Your task to perform on an android device: Search for 24"x36" picture frame on Home Depot. Image 0: 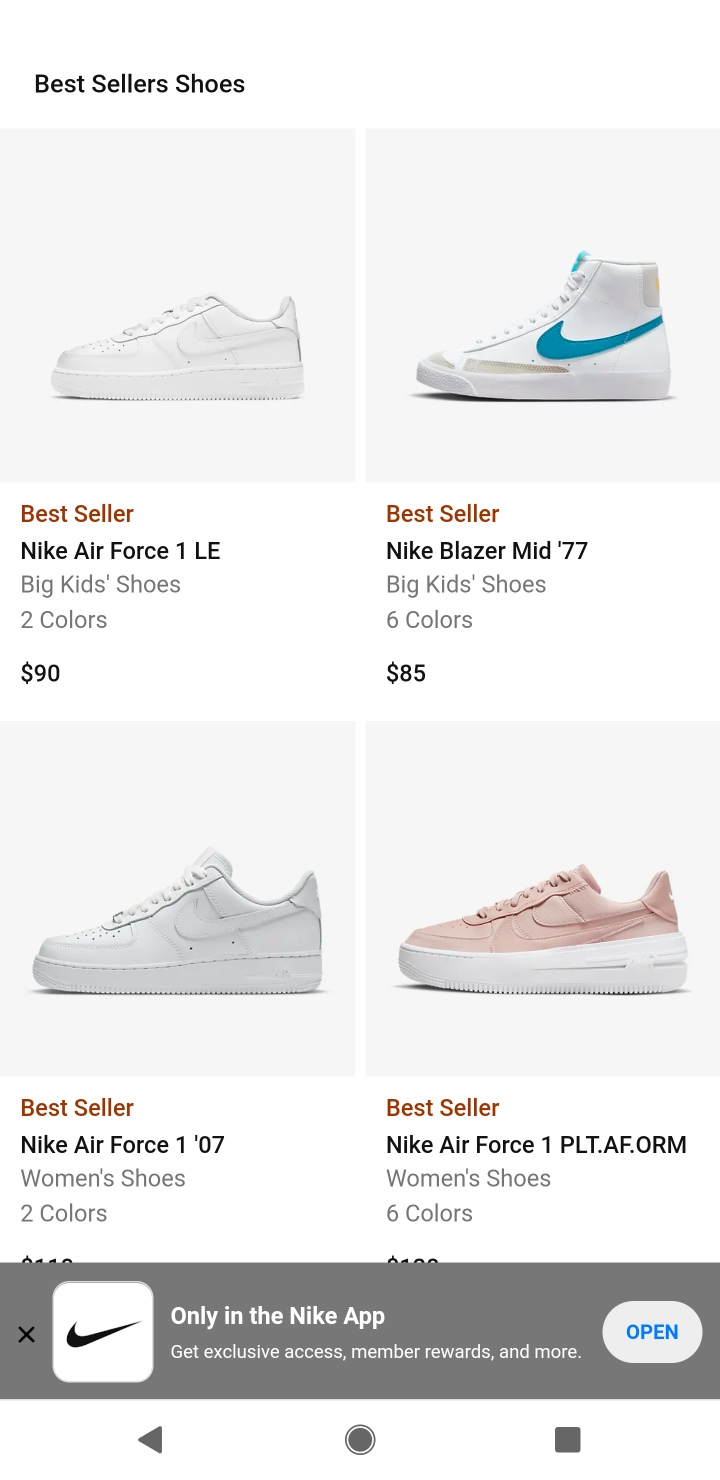
Step 0: press home button
Your task to perform on an android device: Search for 24"x36" picture frame on Home Depot. Image 1: 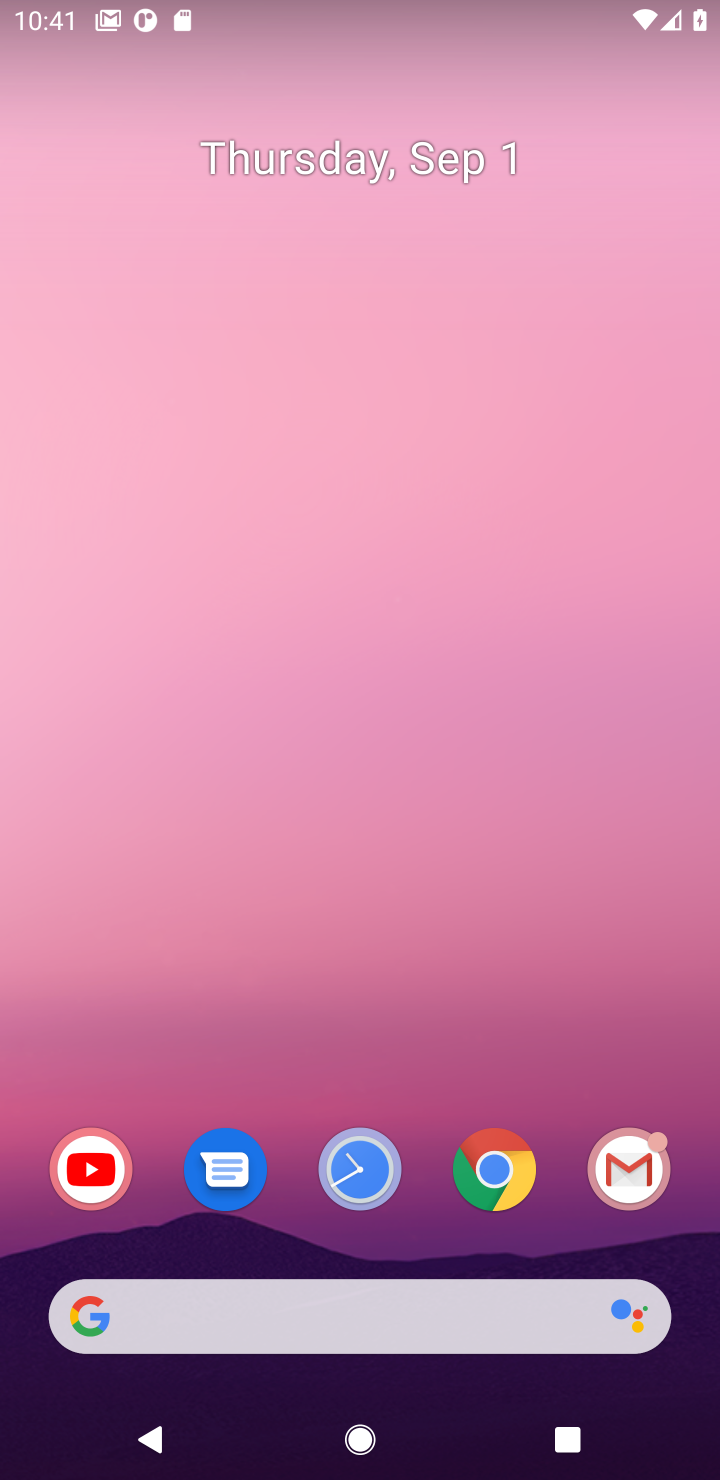
Step 1: drag from (419, 702) to (435, 24)
Your task to perform on an android device: Search for 24"x36" picture frame on Home Depot. Image 2: 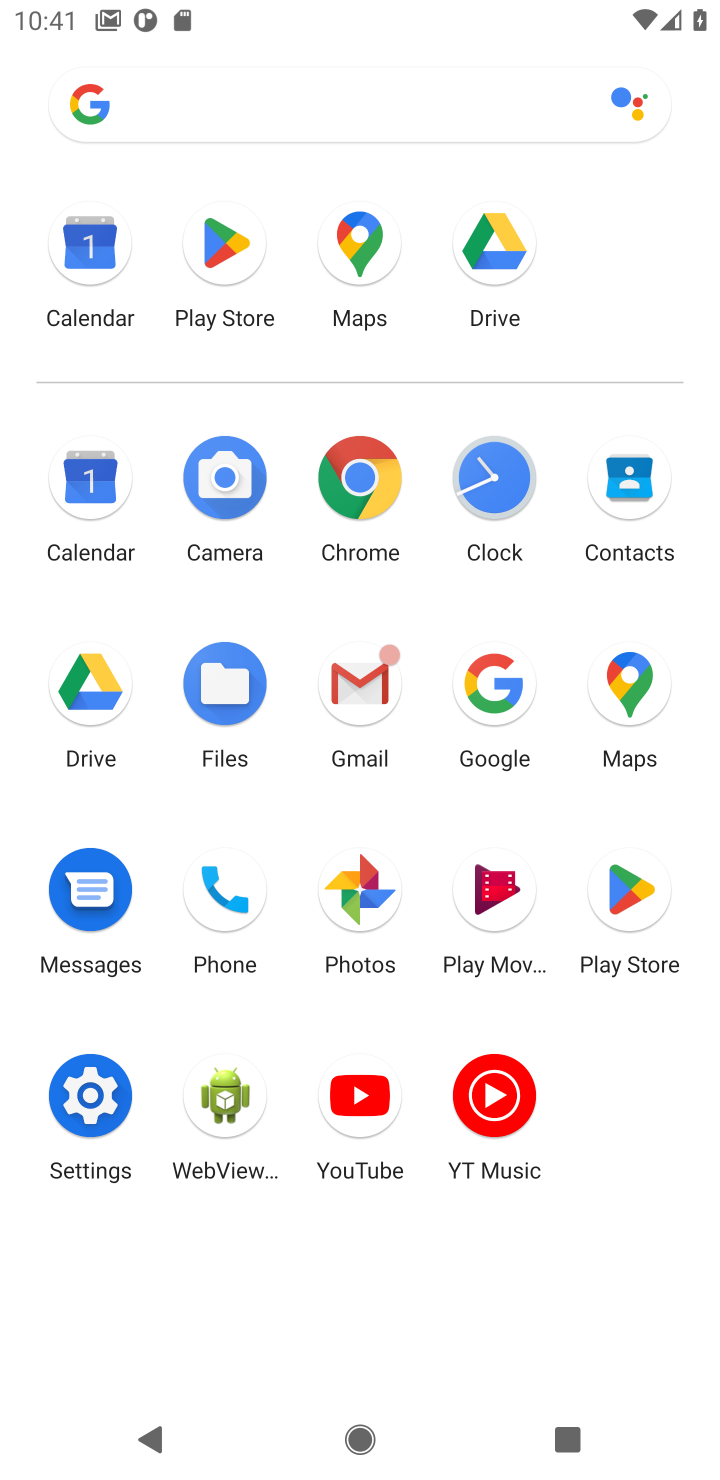
Step 2: click (363, 478)
Your task to perform on an android device: Search for 24"x36" picture frame on Home Depot. Image 3: 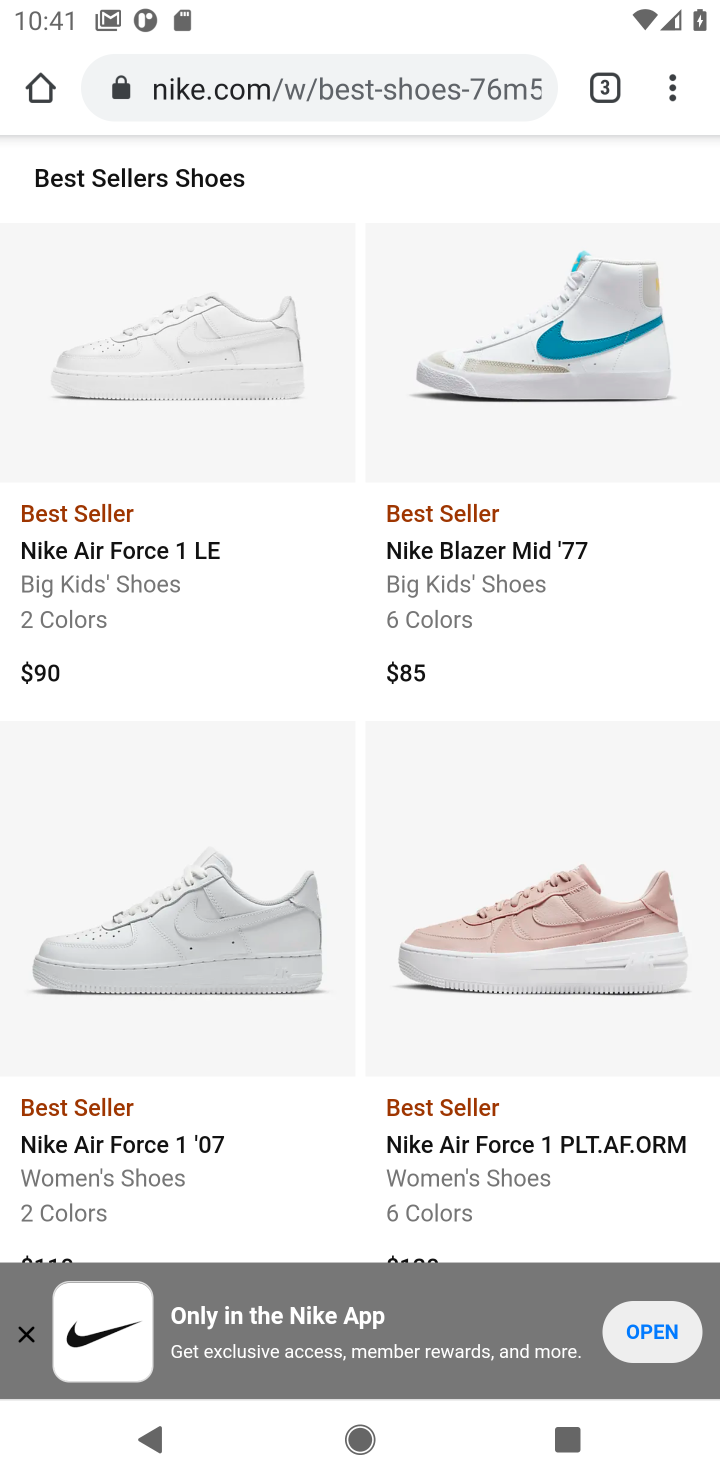
Step 3: drag from (364, 1117) to (407, 1273)
Your task to perform on an android device: Search for 24"x36" picture frame on Home Depot. Image 4: 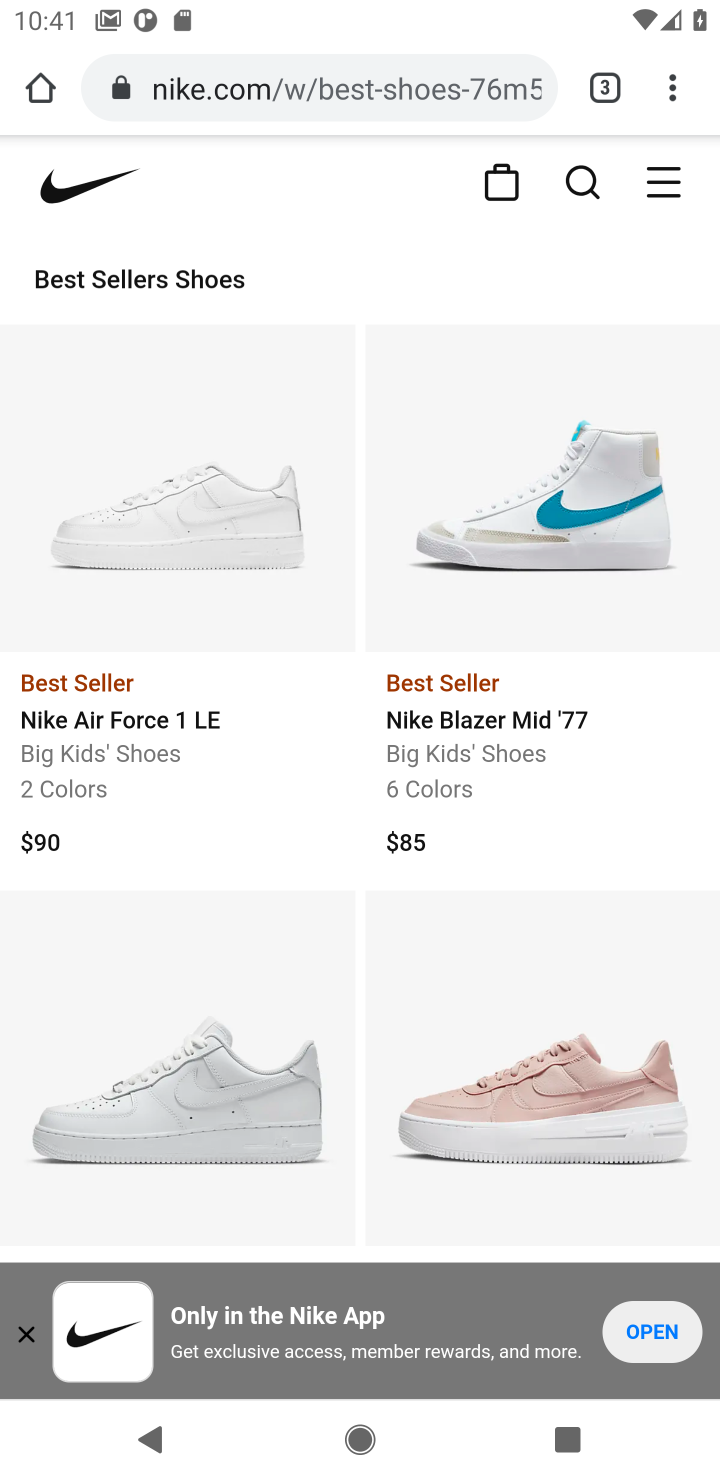
Step 4: click (209, 80)
Your task to perform on an android device: Search for 24"x36" picture frame on Home Depot. Image 5: 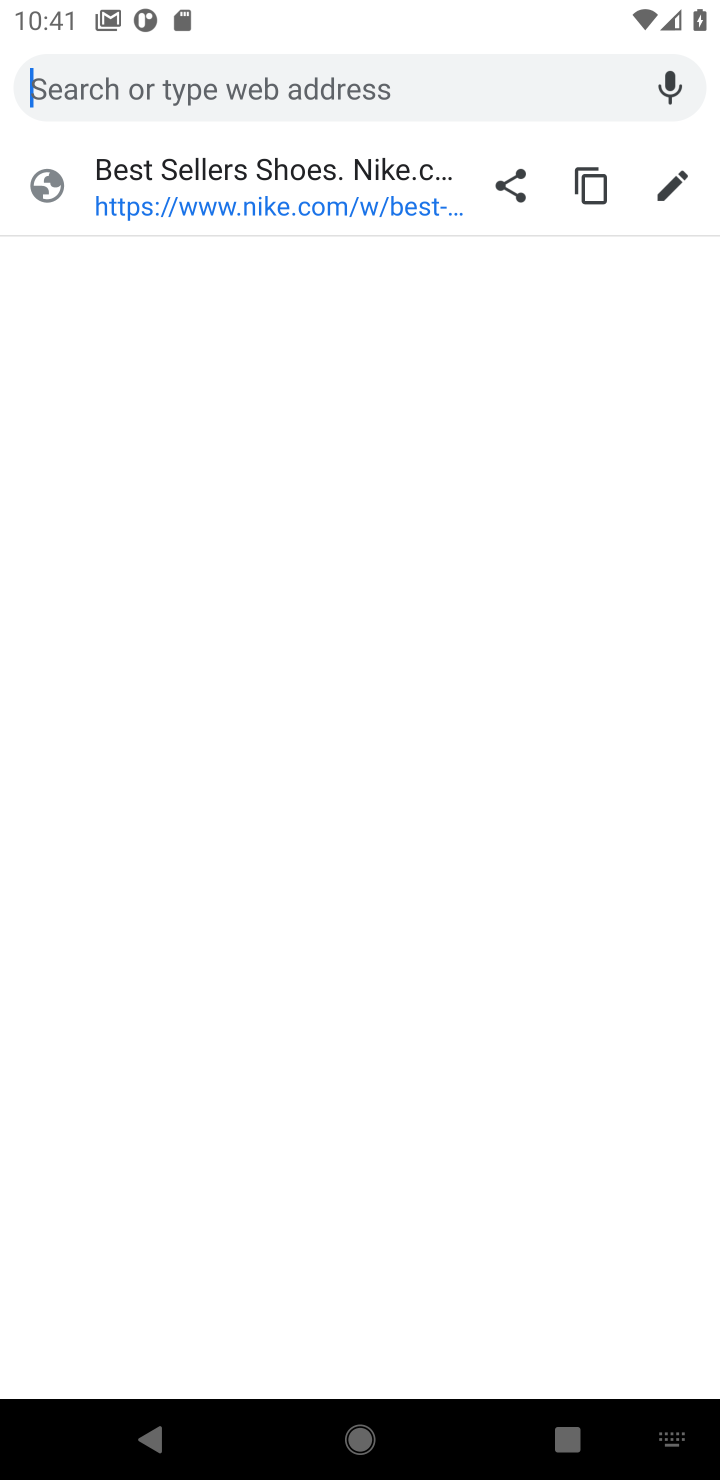
Step 5: click (131, 76)
Your task to perform on an android device: Search for 24"x36" picture frame on Home Depot. Image 6: 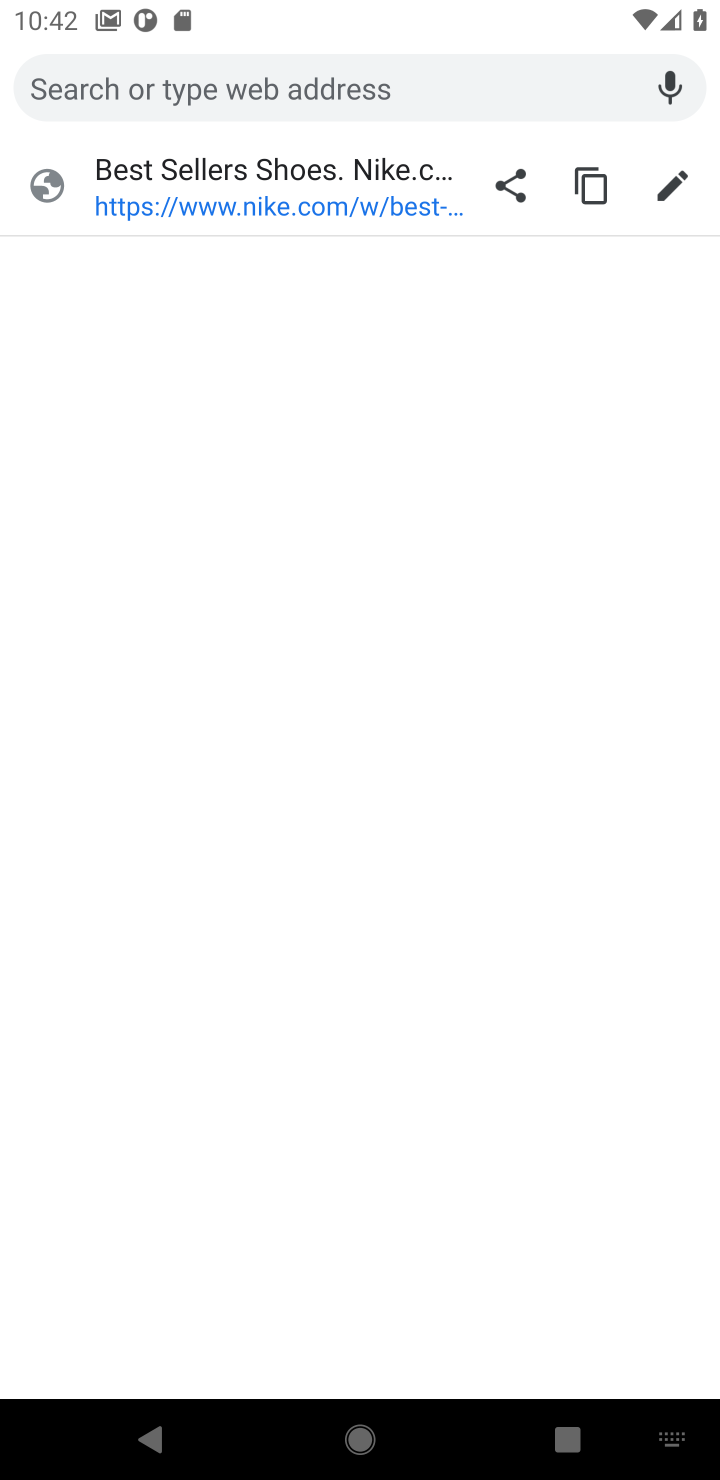
Step 6: click (302, 86)
Your task to perform on an android device: Search for 24"x36" picture frame on Home Depot. Image 7: 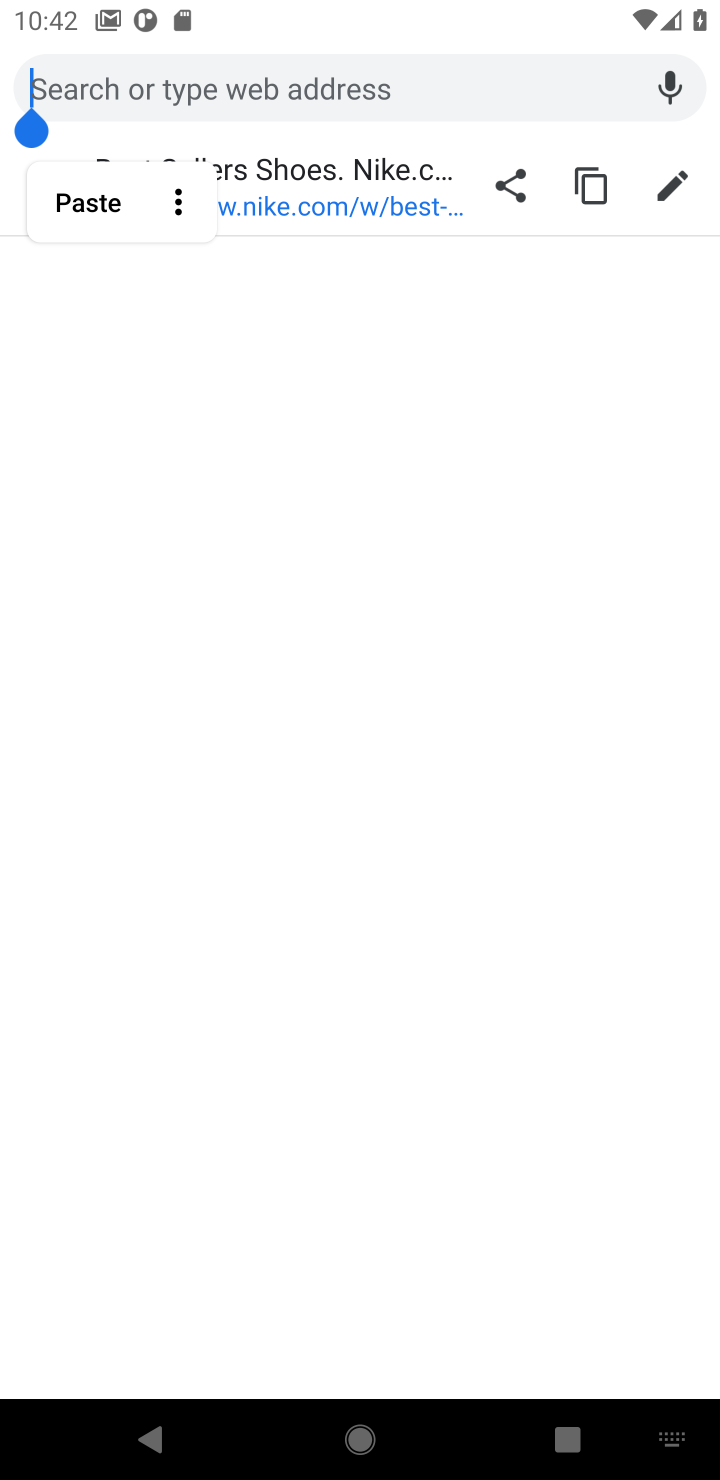
Step 7: type "24"x36" picture frame on Home Depot"
Your task to perform on an android device: Search for 24"x36" picture frame on Home Depot. Image 8: 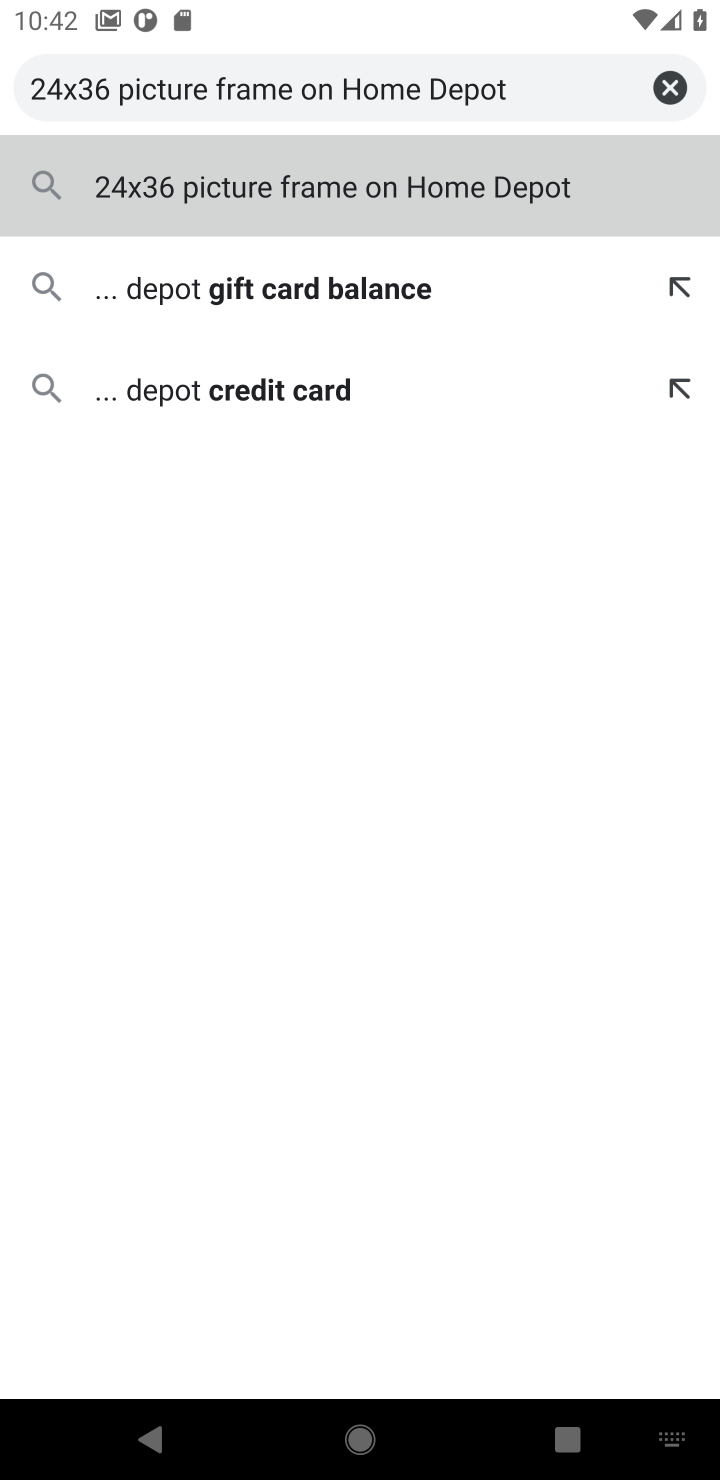
Step 8: type ""
Your task to perform on an android device: Search for 24"x36" picture frame on Home Depot. Image 9: 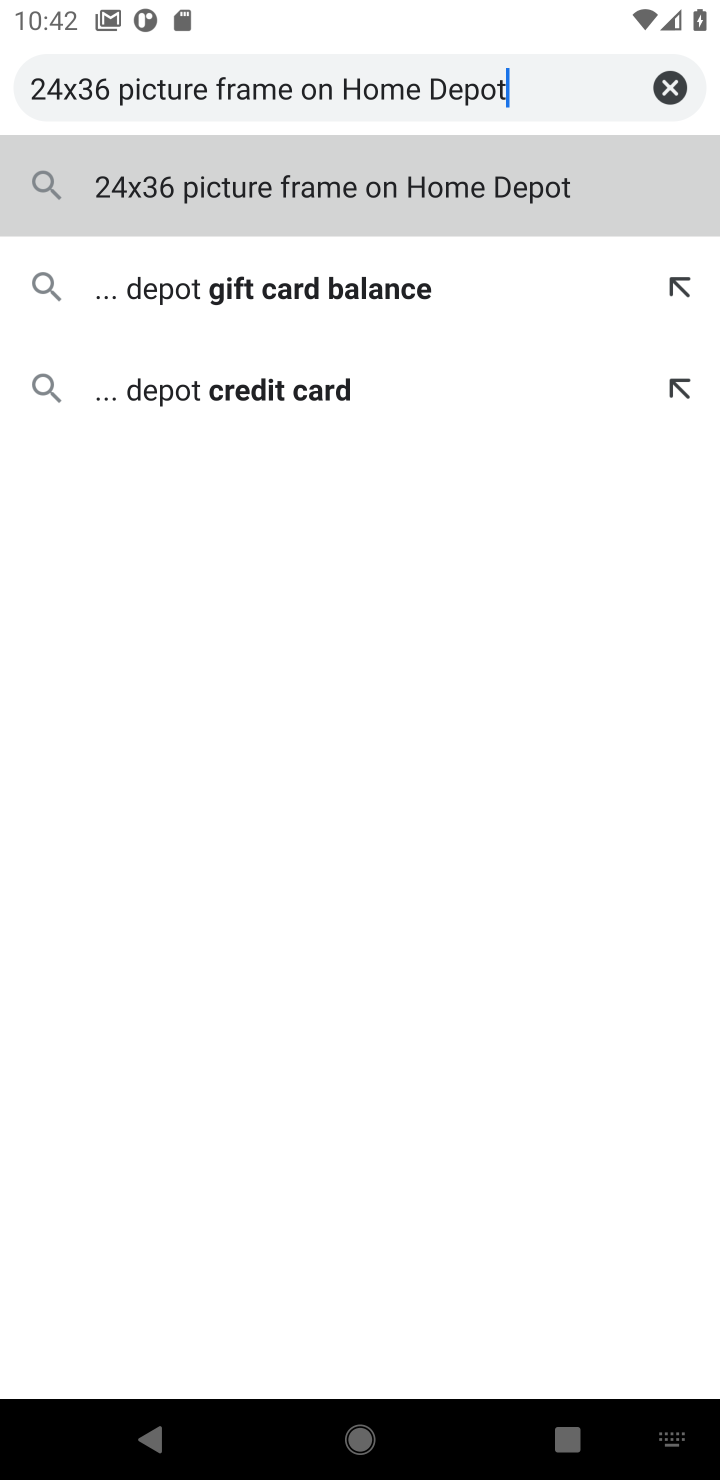
Step 9: click (371, 208)
Your task to perform on an android device: Search for 24"x36" picture frame on Home Depot. Image 10: 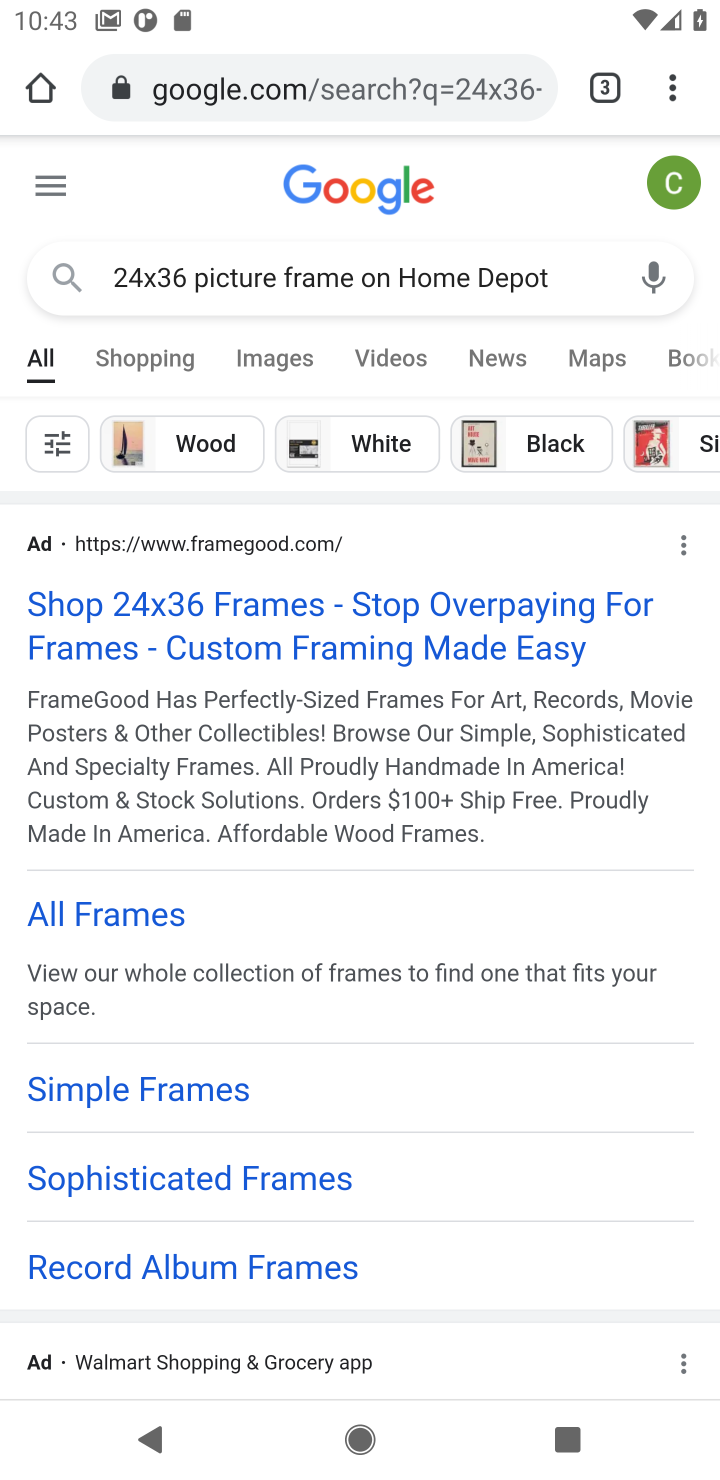
Step 10: drag from (439, 691) to (431, 304)
Your task to perform on an android device: Search for 24"x36" picture frame on Home Depot. Image 11: 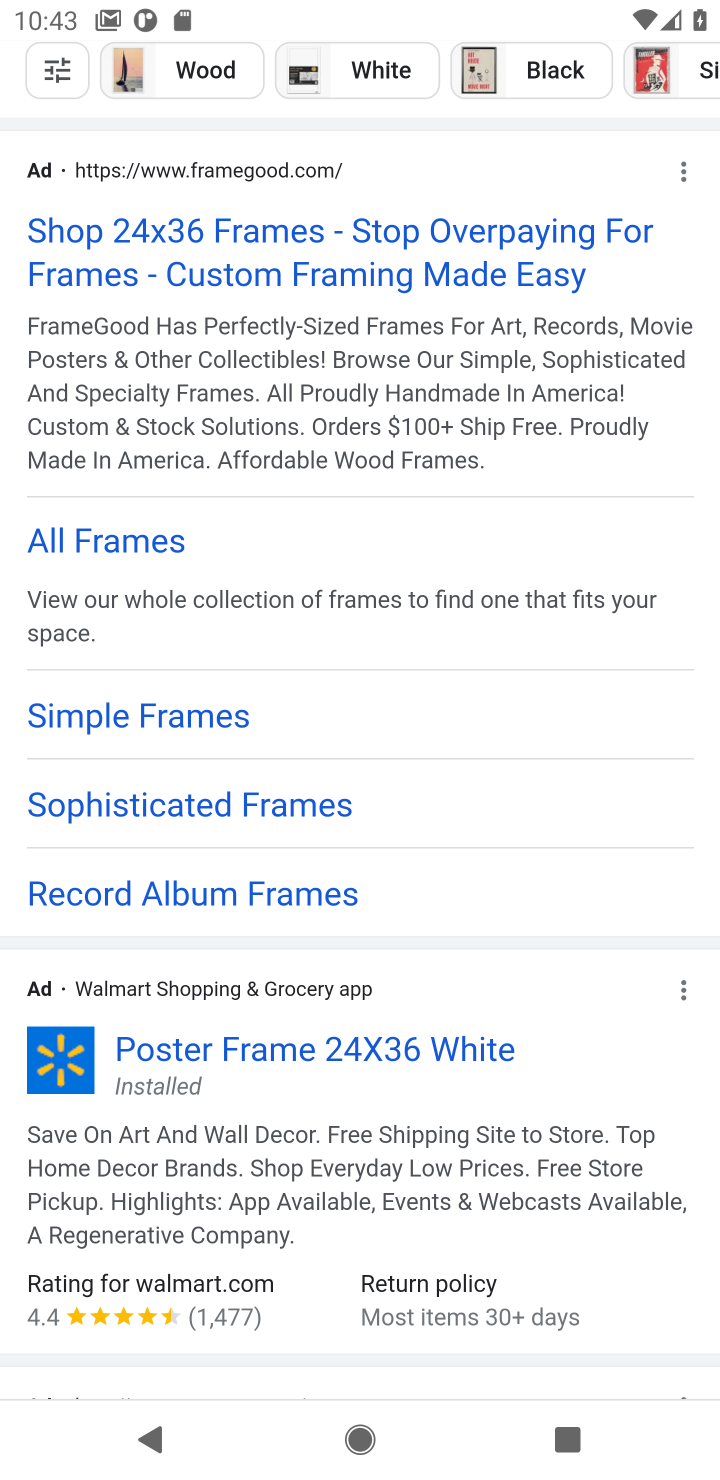
Step 11: drag from (366, 1252) to (424, 164)
Your task to perform on an android device: Search for 24"x36" picture frame on Home Depot. Image 12: 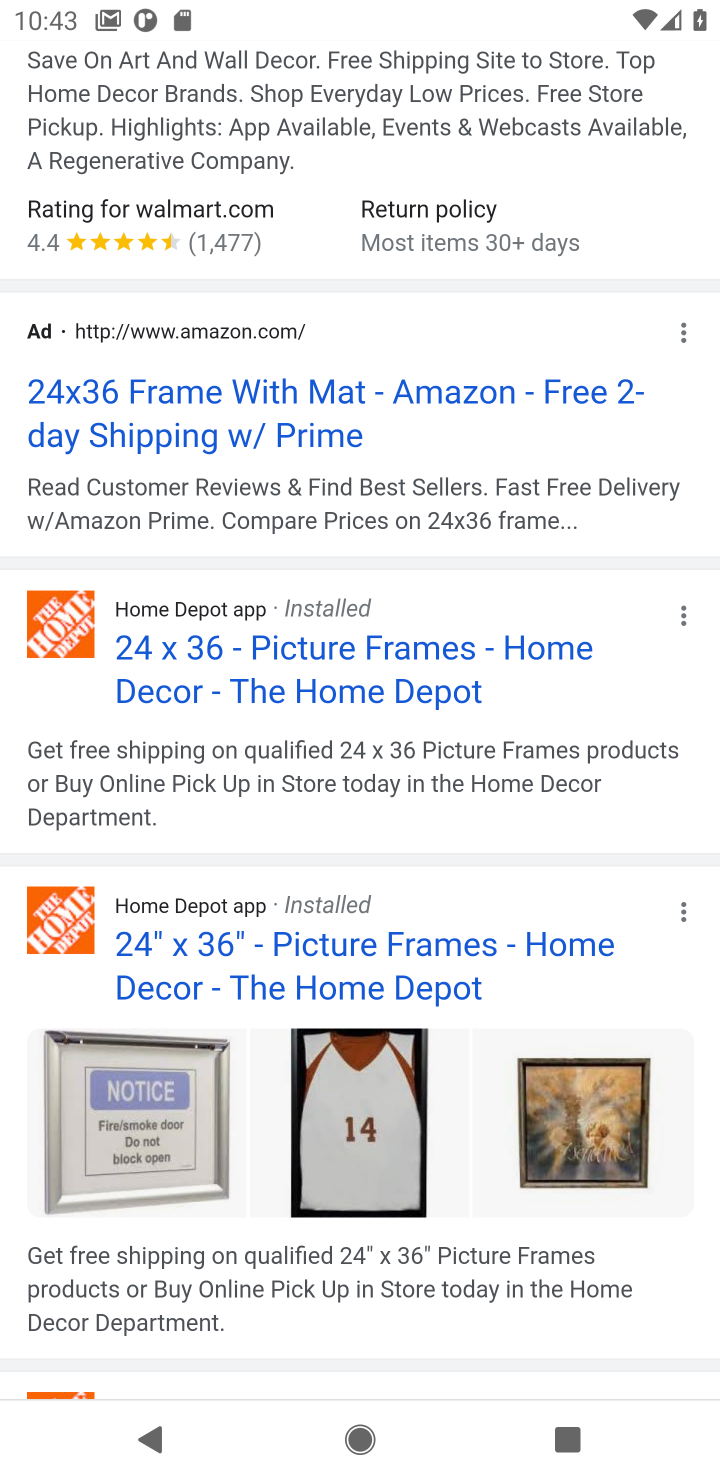
Step 12: drag from (398, 971) to (406, 436)
Your task to perform on an android device: Search for 24"x36" picture frame on Home Depot. Image 13: 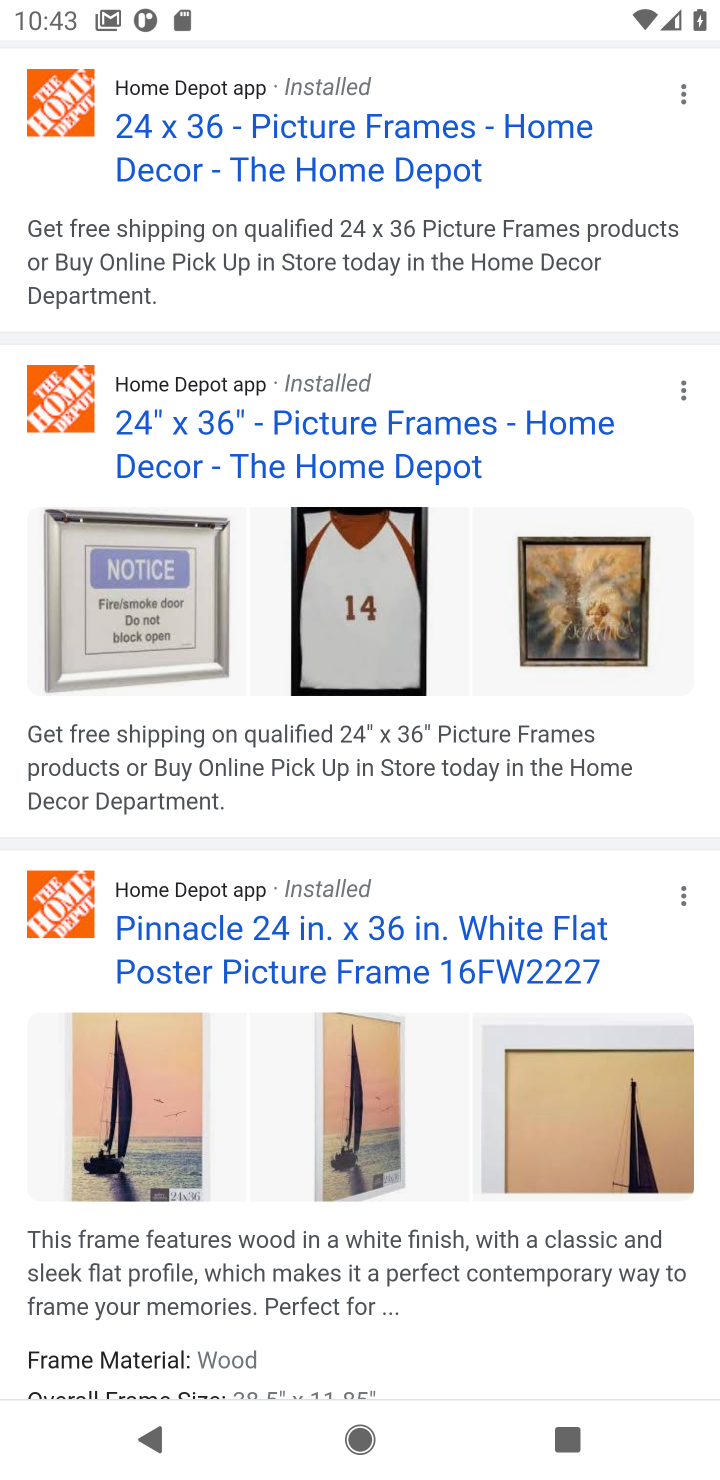
Step 13: drag from (375, 229) to (439, 1264)
Your task to perform on an android device: Search for 24"x36" picture frame on Home Depot. Image 14: 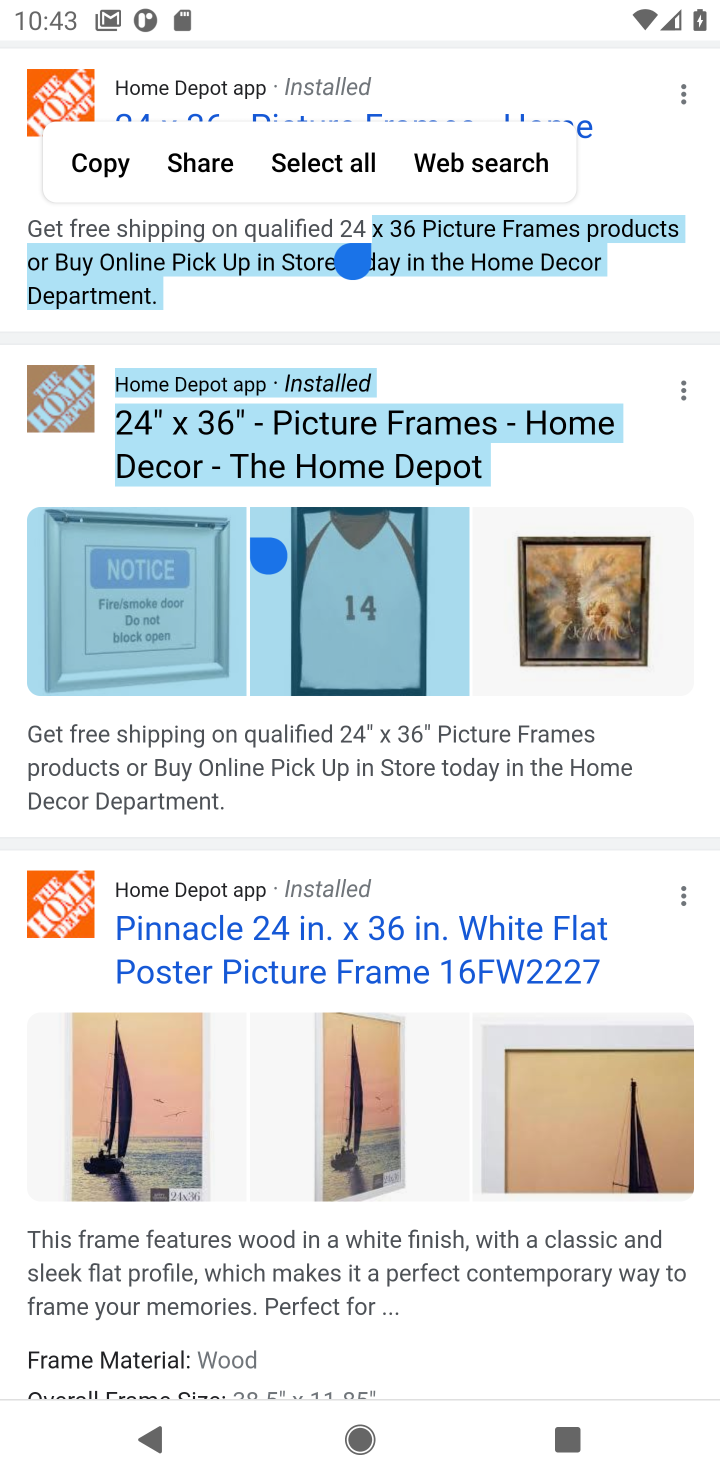
Step 14: click (636, 342)
Your task to perform on an android device: Search for 24"x36" picture frame on Home Depot. Image 15: 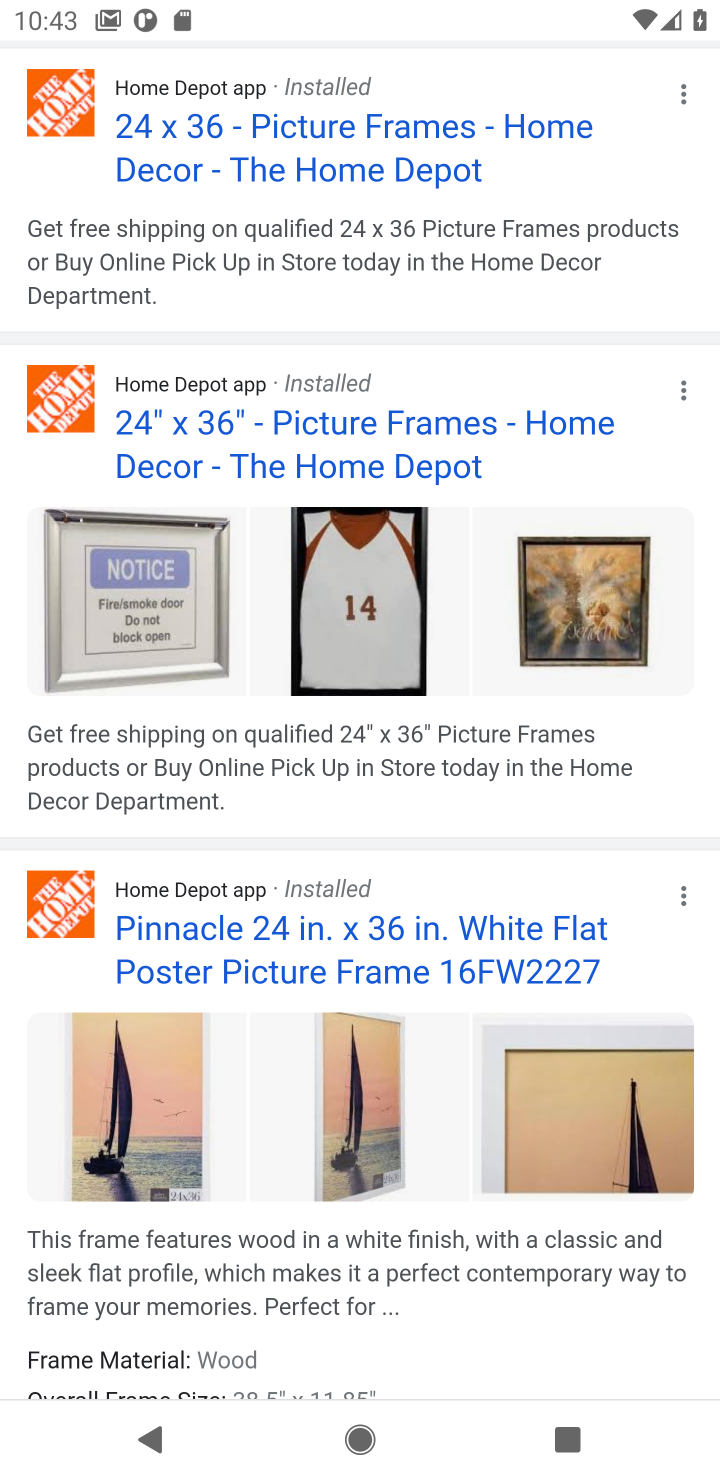
Step 15: drag from (574, 225) to (641, 1283)
Your task to perform on an android device: Search for 24"x36" picture frame on Home Depot. Image 16: 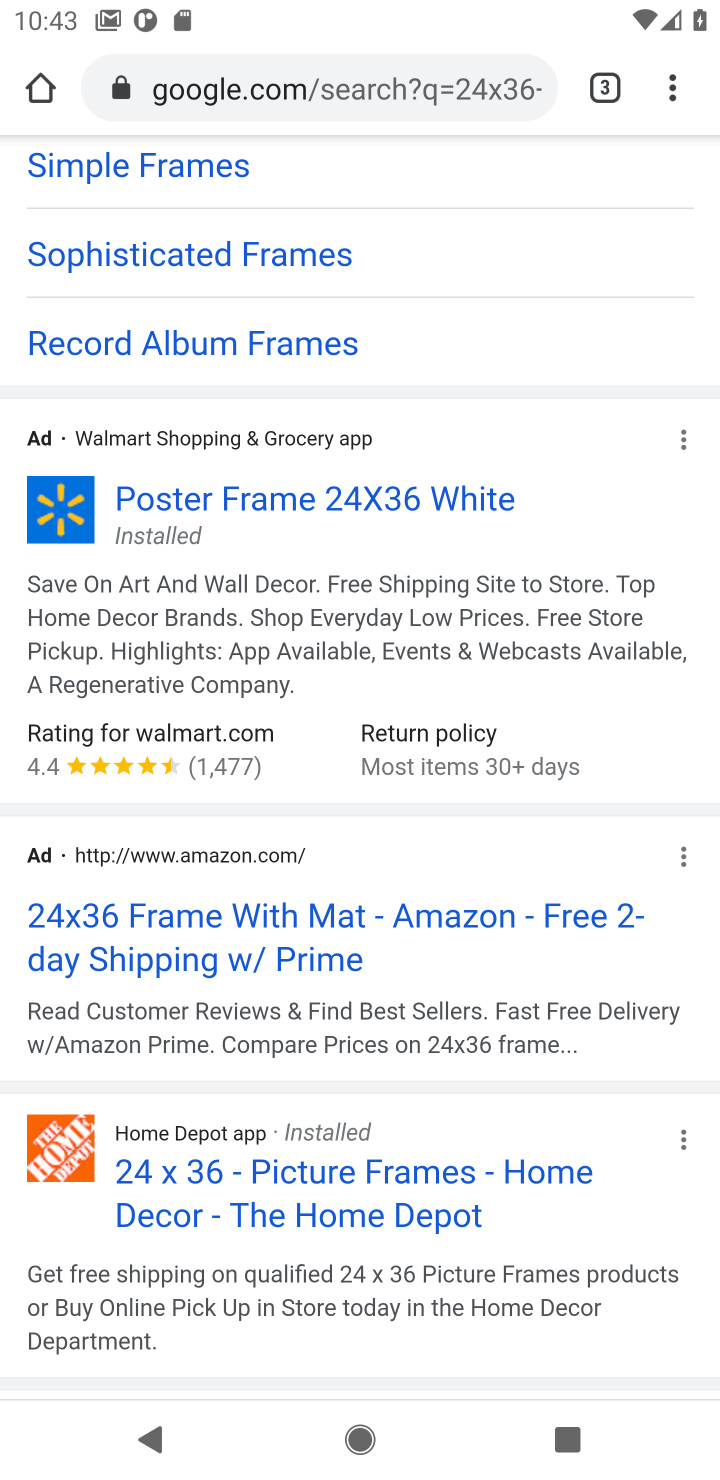
Step 16: drag from (460, 397) to (499, 1310)
Your task to perform on an android device: Search for 24"x36" picture frame on Home Depot. Image 17: 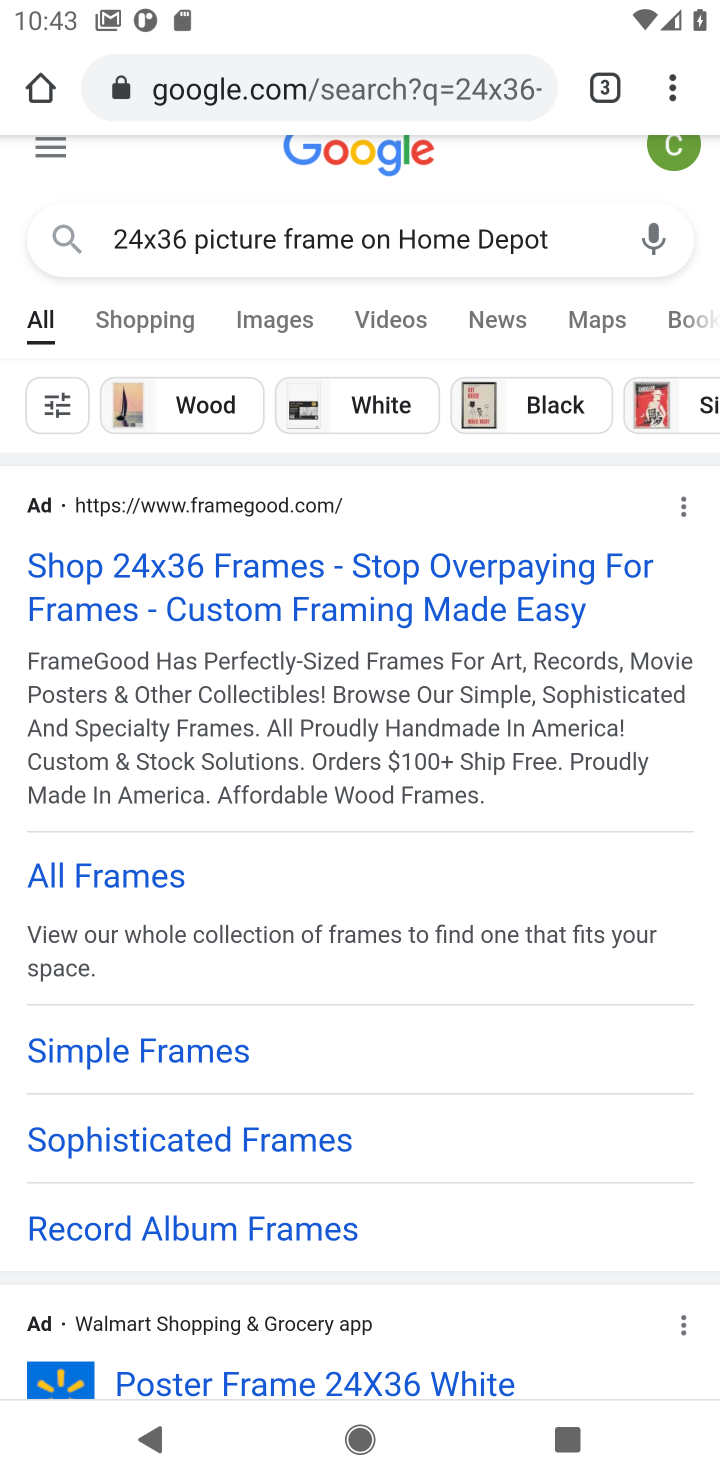
Step 17: drag from (508, 1111) to (514, 588)
Your task to perform on an android device: Search for 24"x36" picture frame on Home Depot. Image 18: 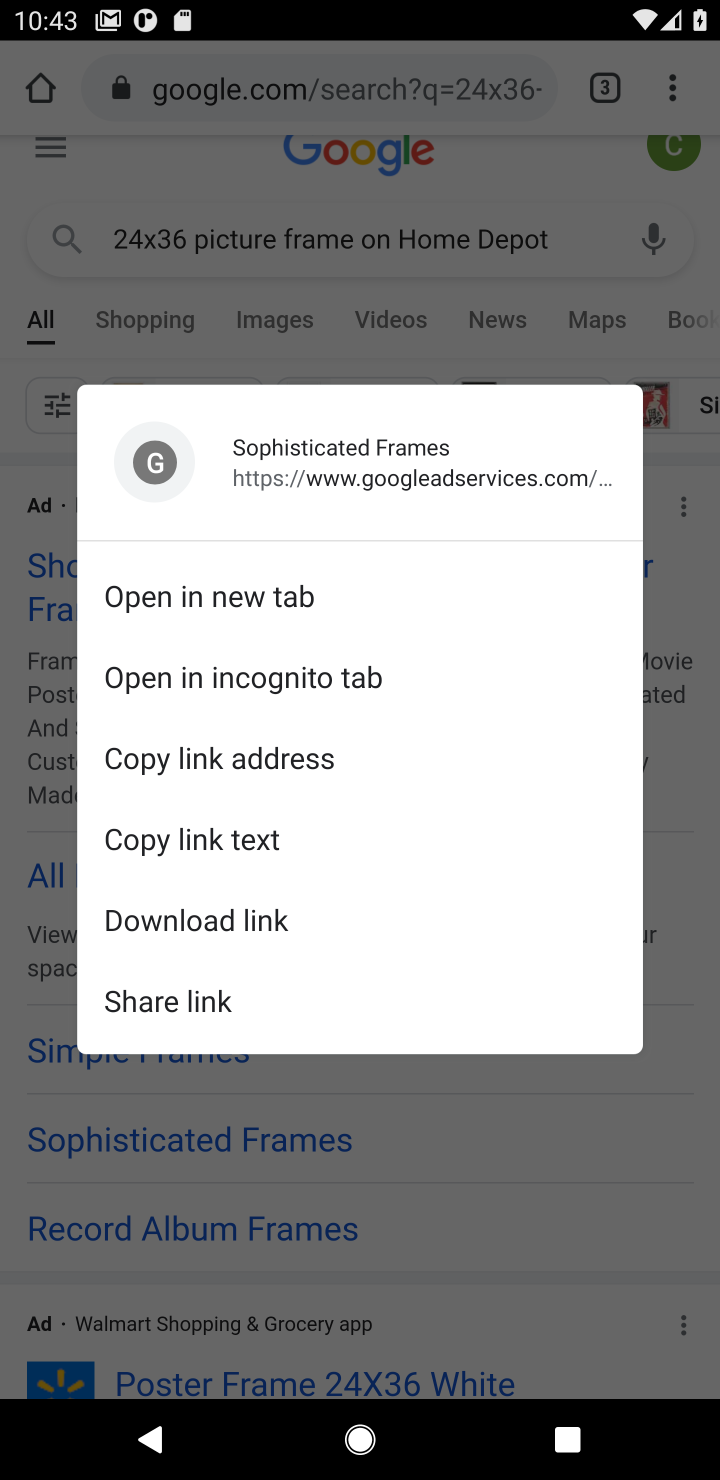
Step 18: click (137, 1218)
Your task to perform on an android device: Search for 24"x36" picture frame on Home Depot. Image 19: 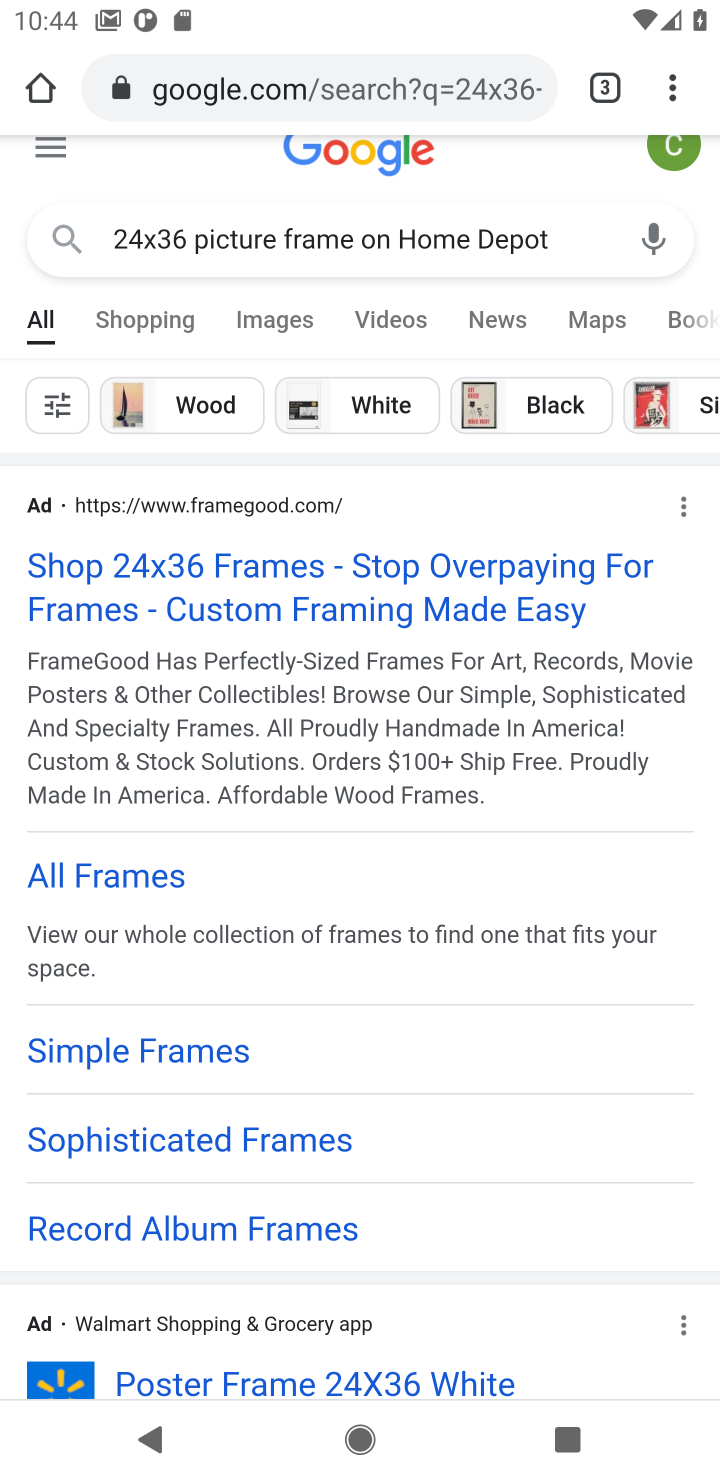
Step 19: task complete